Your task to perform on an android device: change the clock display to analog Image 0: 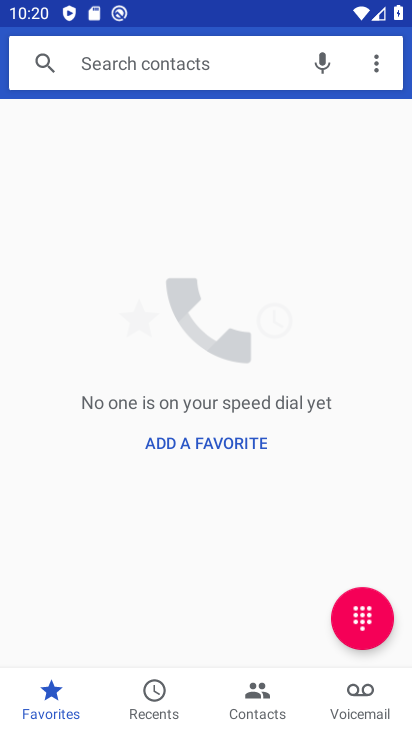
Step 0: press home button
Your task to perform on an android device: change the clock display to analog Image 1: 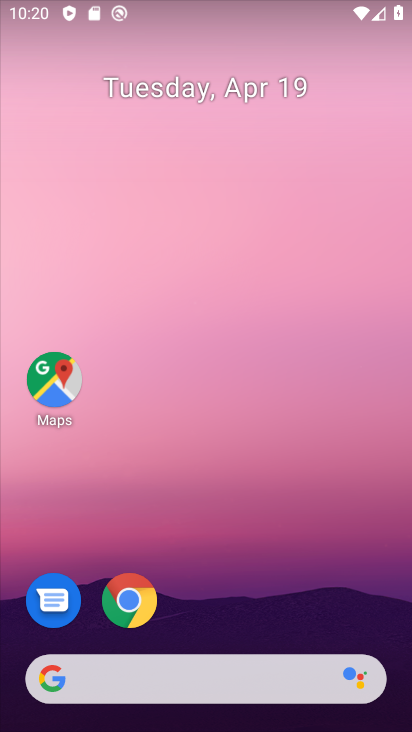
Step 1: drag from (192, 575) to (335, 2)
Your task to perform on an android device: change the clock display to analog Image 2: 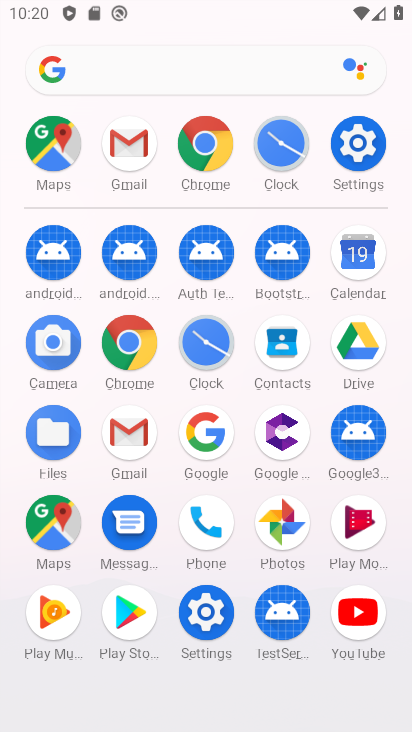
Step 2: click (209, 347)
Your task to perform on an android device: change the clock display to analog Image 3: 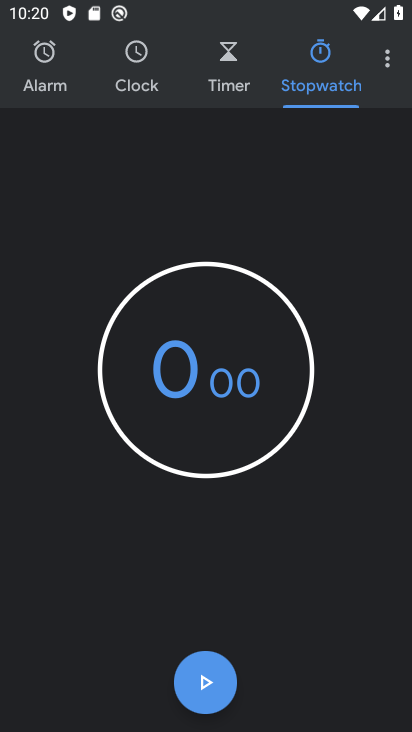
Step 3: click (381, 57)
Your task to perform on an android device: change the clock display to analog Image 4: 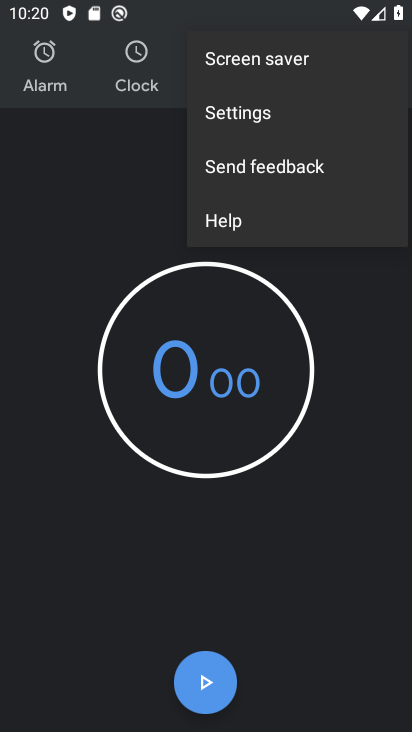
Step 4: click (246, 119)
Your task to perform on an android device: change the clock display to analog Image 5: 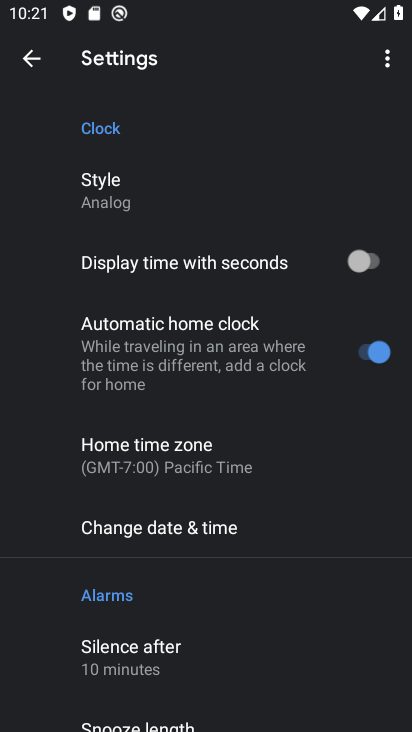
Step 5: task complete